Your task to perform on an android device: What's the weather today? Image 0: 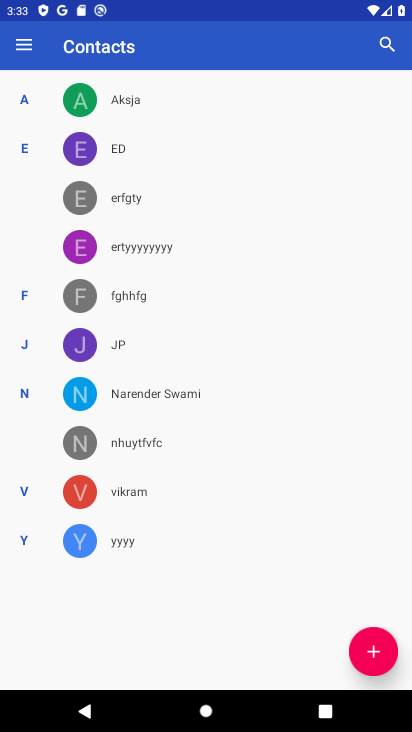
Step 0: press home button
Your task to perform on an android device: What's the weather today? Image 1: 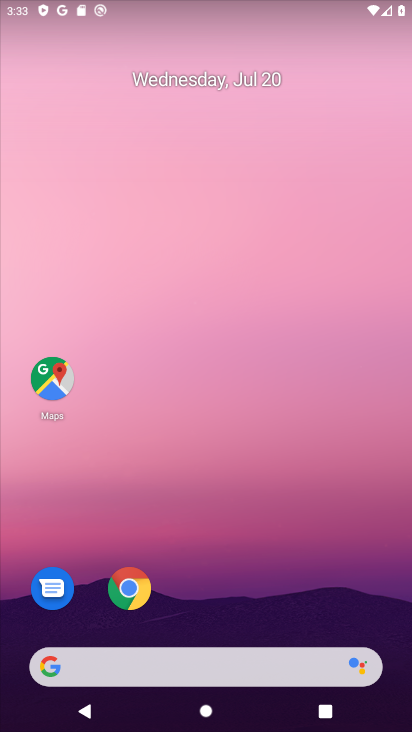
Step 1: click (213, 665)
Your task to perform on an android device: What's the weather today? Image 2: 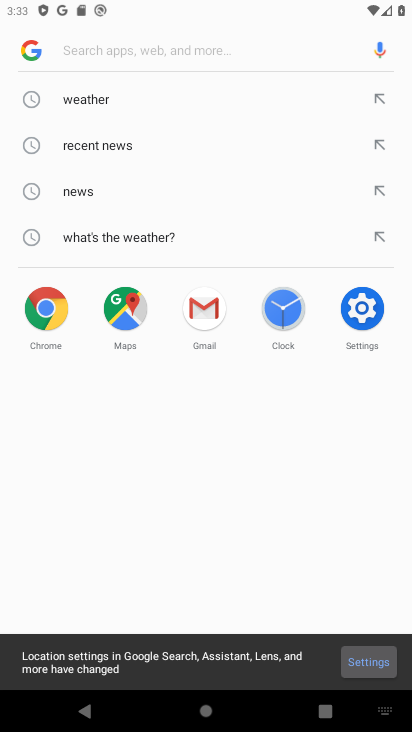
Step 2: click (100, 99)
Your task to perform on an android device: What's the weather today? Image 3: 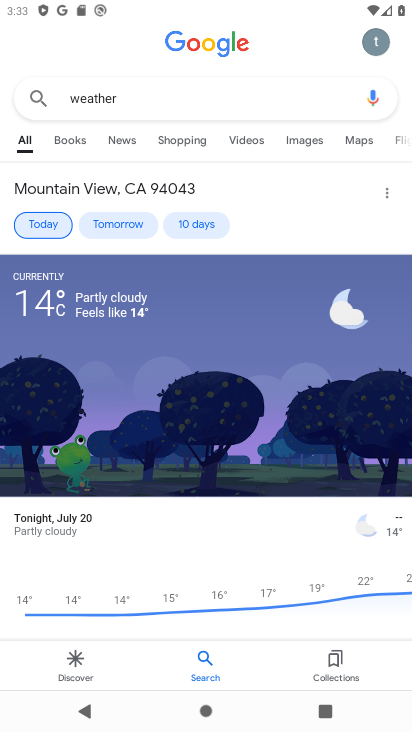
Step 3: task complete